Your task to perform on an android device: allow notifications from all sites in the chrome app Image 0: 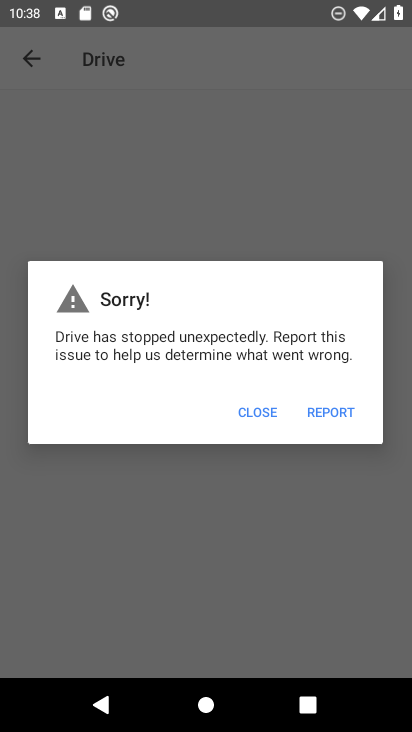
Step 0: press home button
Your task to perform on an android device: allow notifications from all sites in the chrome app Image 1: 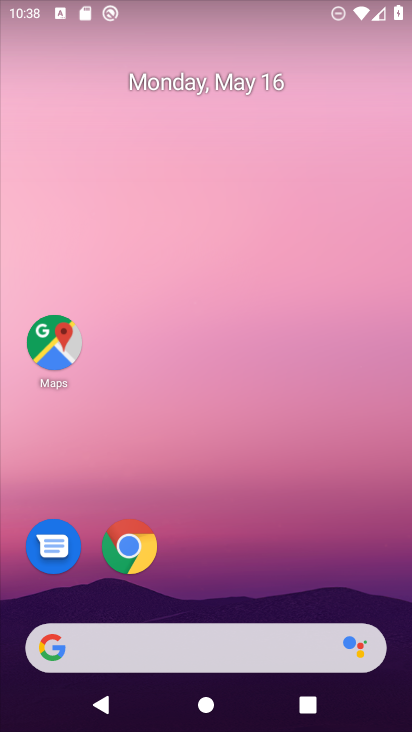
Step 1: click (133, 557)
Your task to perform on an android device: allow notifications from all sites in the chrome app Image 2: 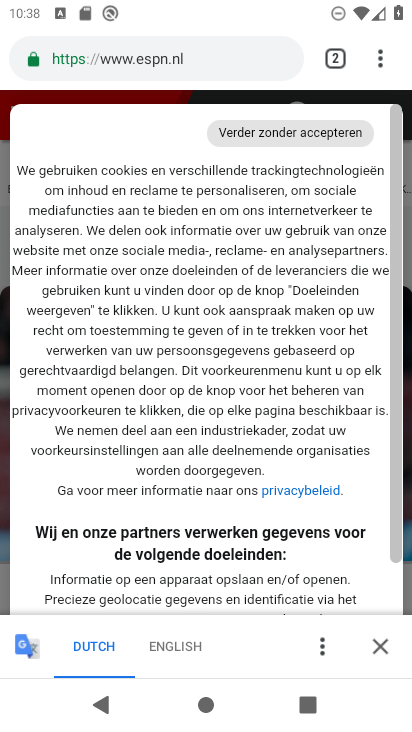
Step 2: click (384, 66)
Your task to perform on an android device: allow notifications from all sites in the chrome app Image 3: 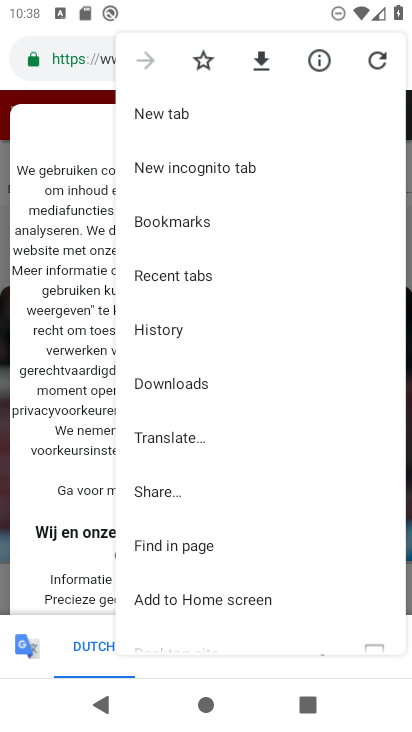
Step 3: drag from (182, 576) to (284, 110)
Your task to perform on an android device: allow notifications from all sites in the chrome app Image 4: 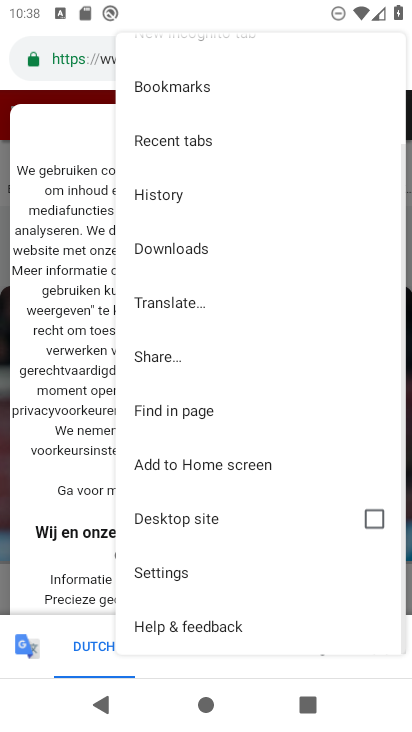
Step 4: click (161, 571)
Your task to perform on an android device: allow notifications from all sites in the chrome app Image 5: 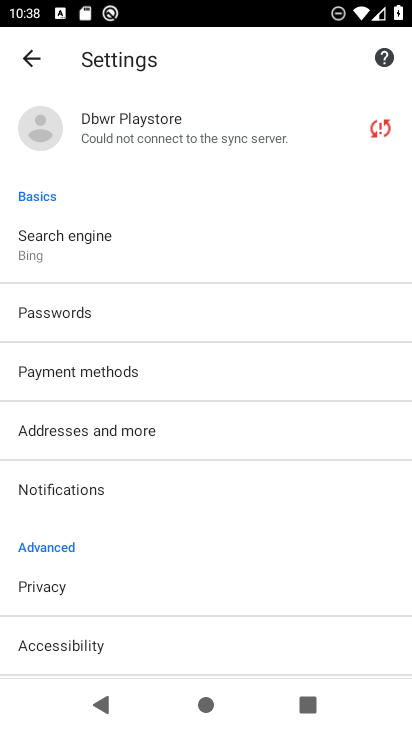
Step 5: click (123, 478)
Your task to perform on an android device: allow notifications from all sites in the chrome app Image 6: 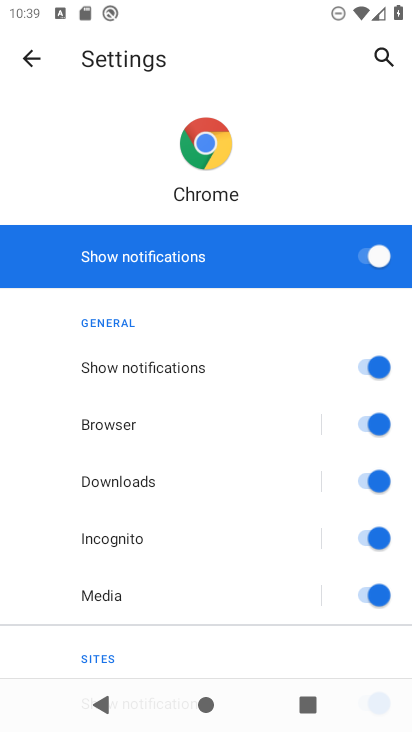
Step 6: task complete